Your task to perform on an android device: turn pop-ups on in chrome Image 0: 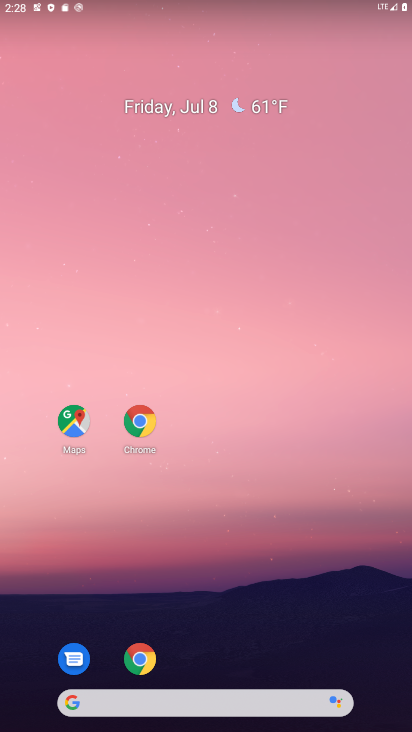
Step 0: click (133, 646)
Your task to perform on an android device: turn pop-ups on in chrome Image 1: 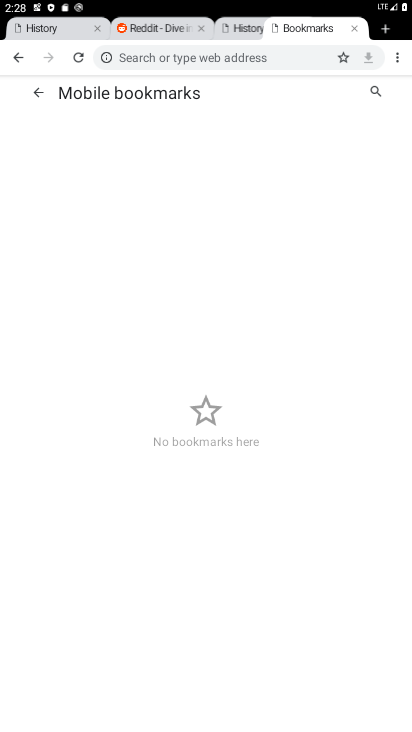
Step 1: drag from (392, 55) to (304, 298)
Your task to perform on an android device: turn pop-ups on in chrome Image 2: 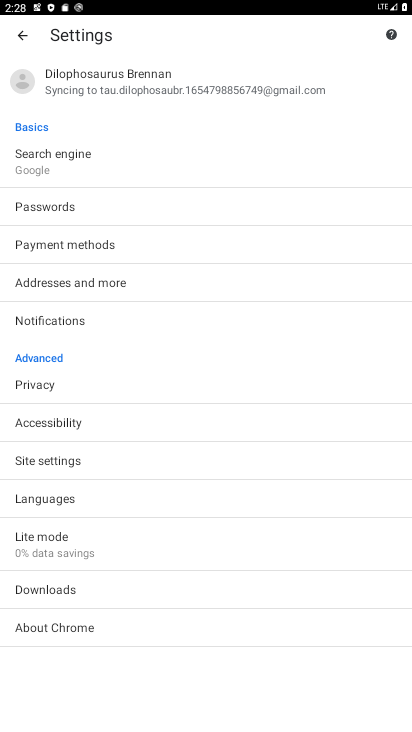
Step 2: click (57, 464)
Your task to perform on an android device: turn pop-ups on in chrome Image 3: 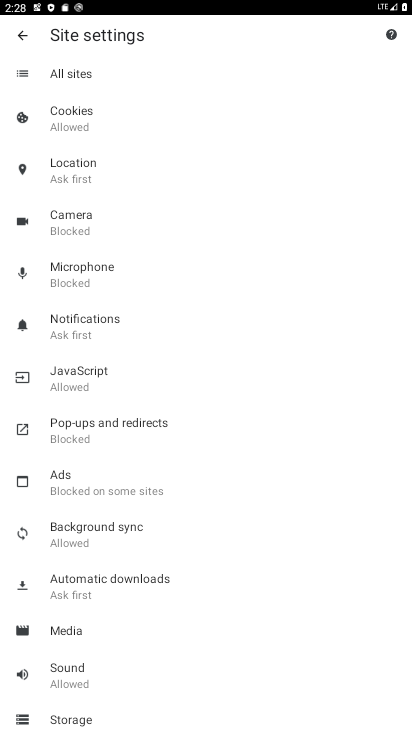
Step 3: click (54, 439)
Your task to perform on an android device: turn pop-ups on in chrome Image 4: 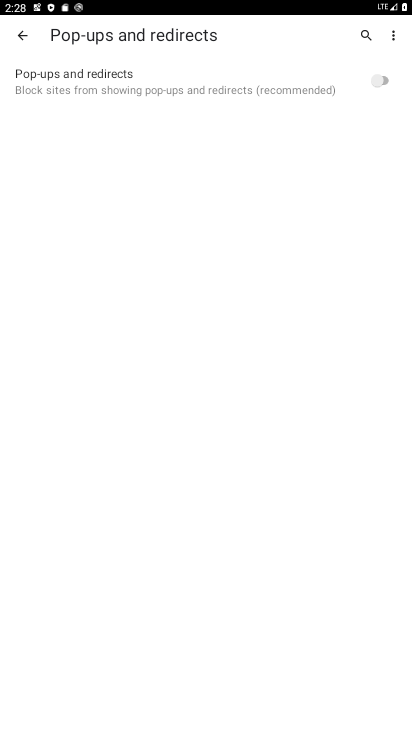
Step 4: click (388, 77)
Your task to perform on an android device: turn pop-ups on in chrome Image 5: 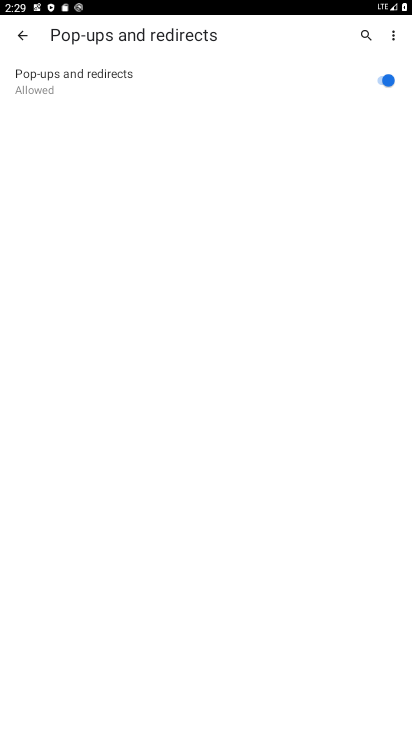
Step 5: task complete